Your task to perform on an android device: Install the Instagram app Image 0: 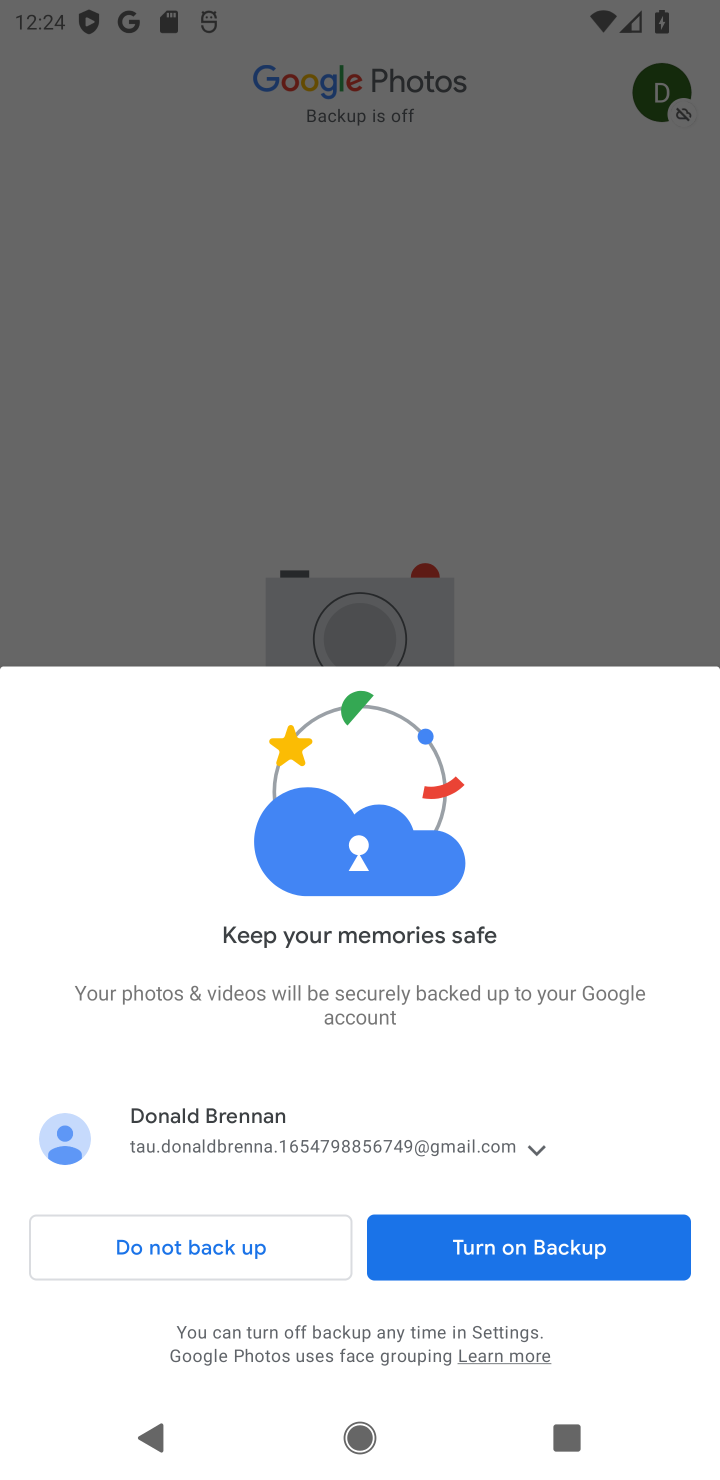
Step 0: press home button
Your task to perform on an android device: Install the Instagram app Image 1: 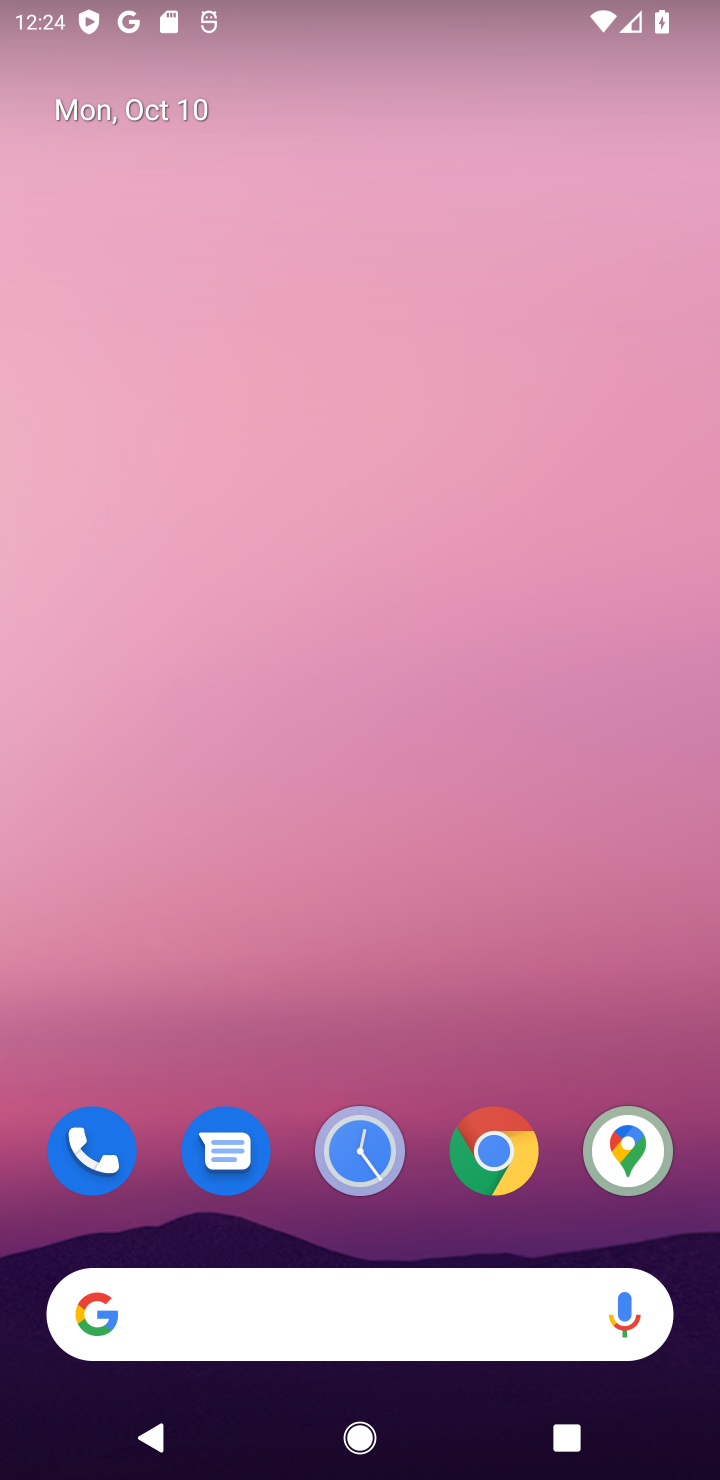
Step 1: drag from (495, 1004) to (448, 265)
Your task to perform on an android device: Install the Instagram app Image 2: 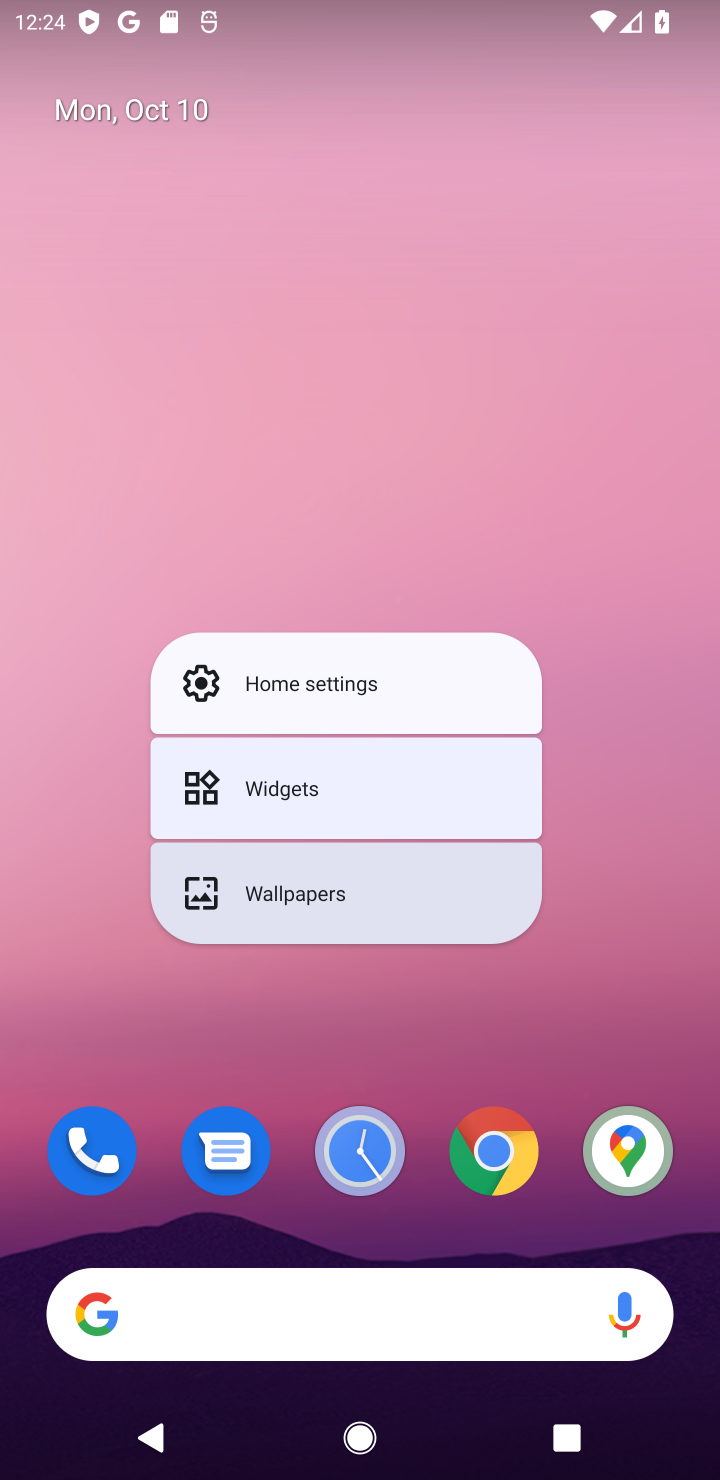
Step 2: click (604, 898)
Your task to perform on an android device: Install the Instagram app Image 3: 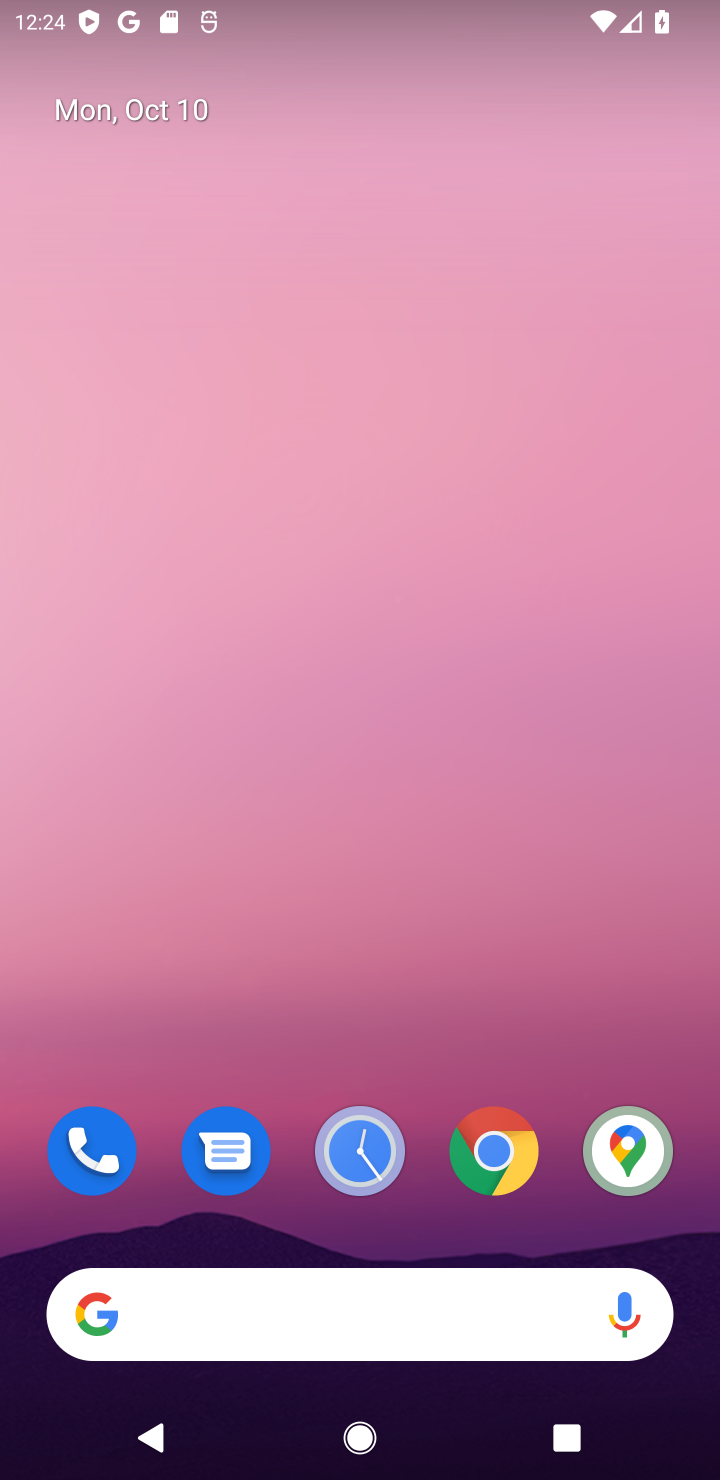
Step 3: drag from (422, 1067) to (278, 347)
Your task to perform on an android device: Install the Instagram app Image 4: 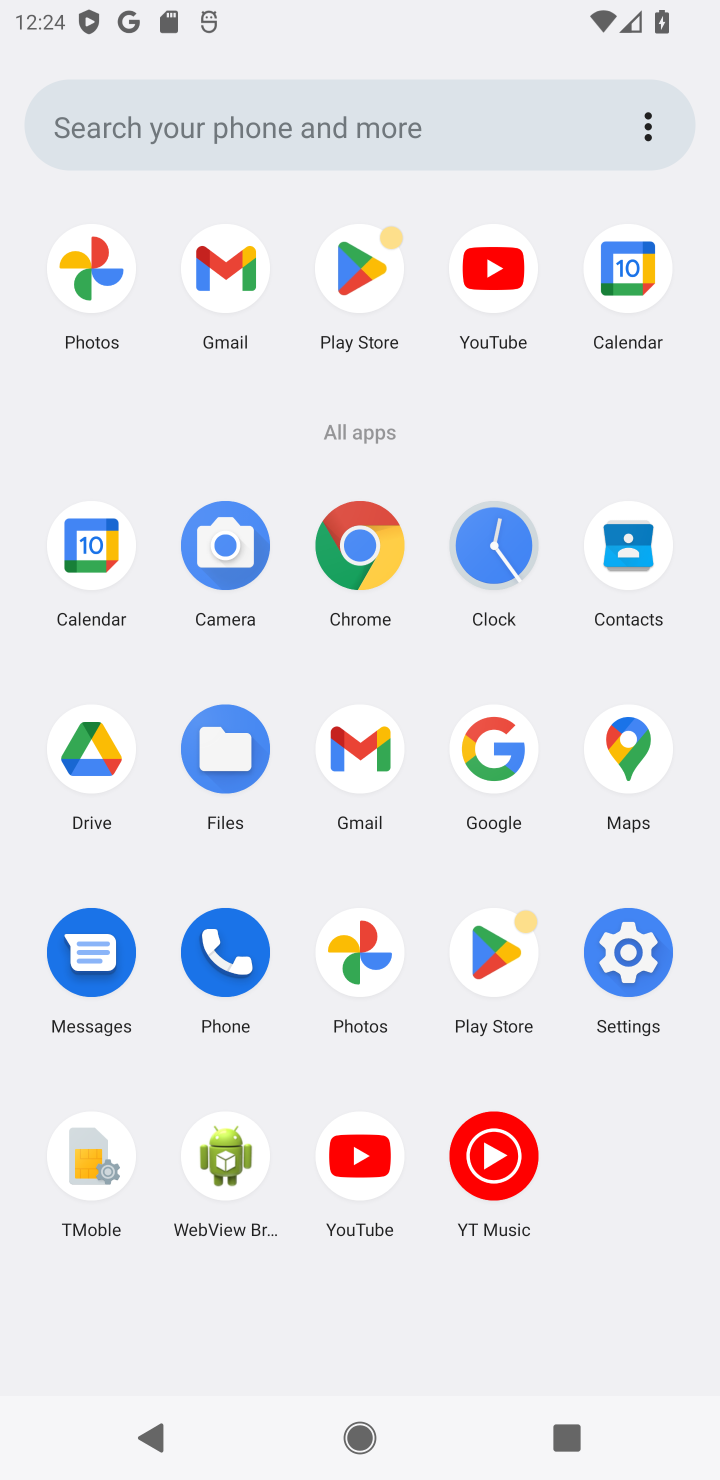
Step 4: click (352, 287)
Your task to perform on an android device: Install the Instagram app Image 5: 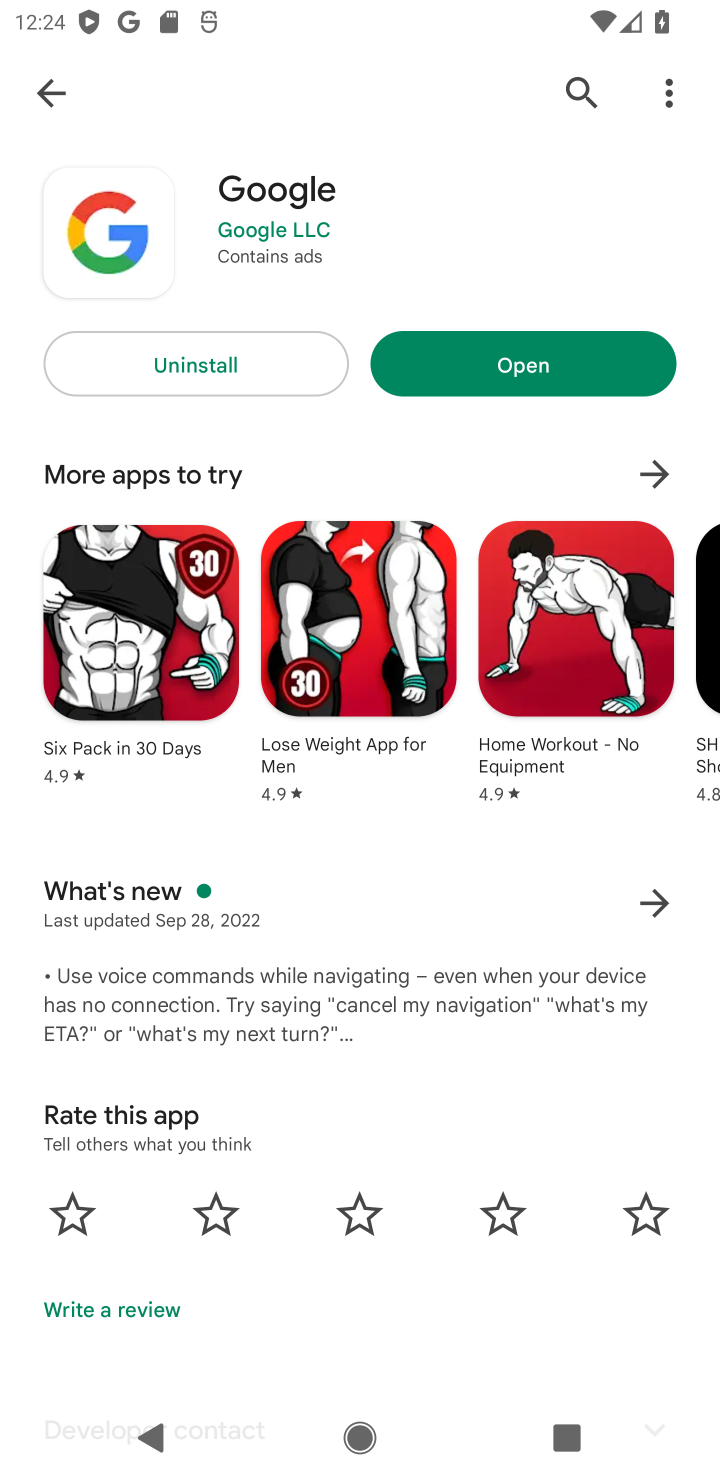
Step 5: click (56, 91)
Your task to perform on an android device: Install the Instagram app Image 6: 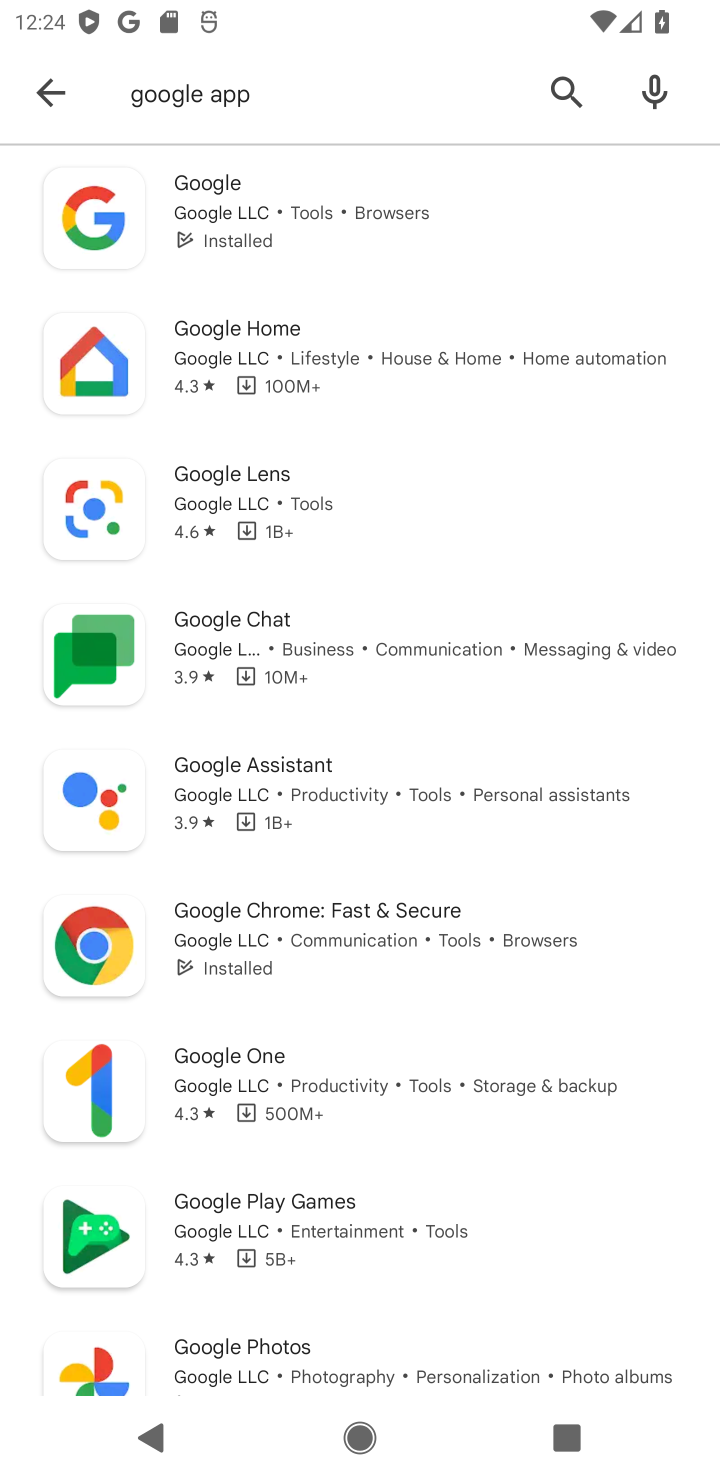
Step 6: click (552, 95)
Your task to perform on an android device: Install the Instagram app Image 7: 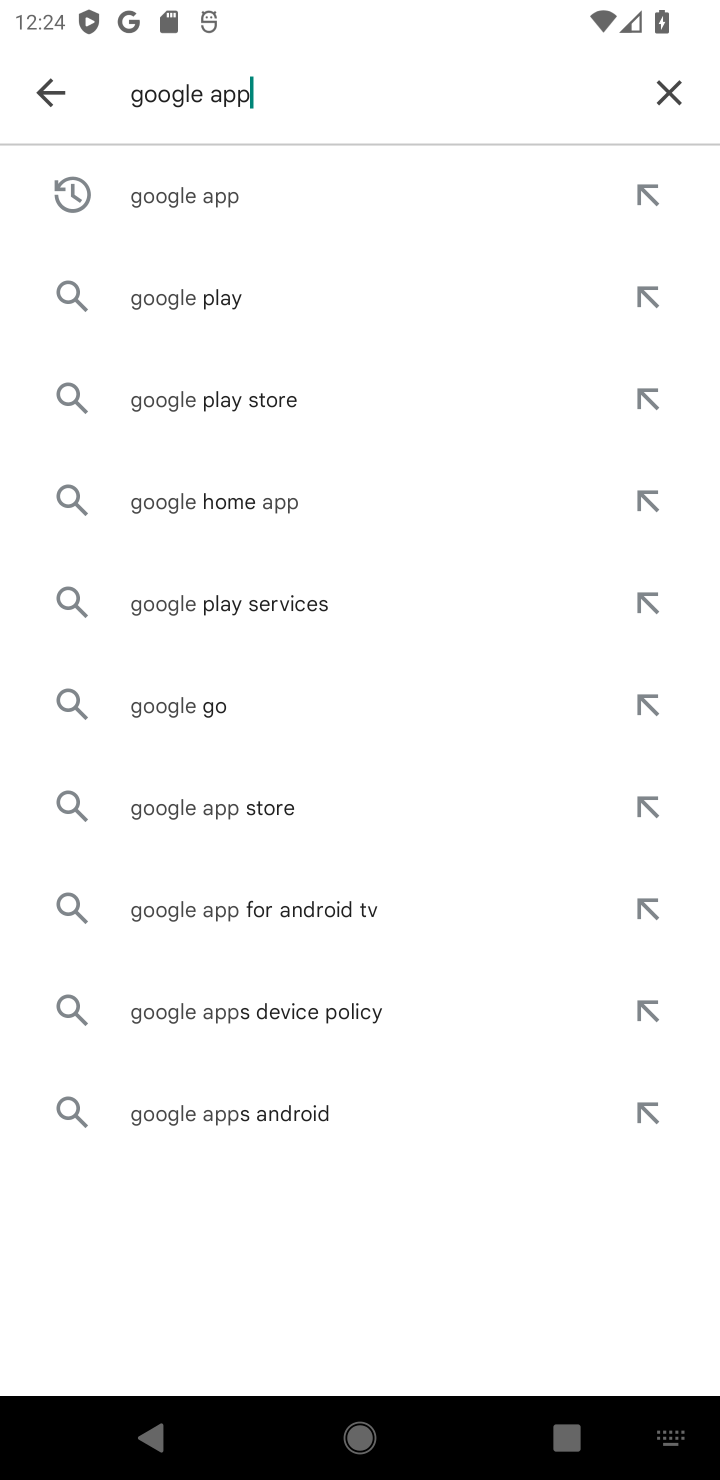
Step 7: click (663, 90)
Your task to perform on an android device: Install the Instagram app Image 8: 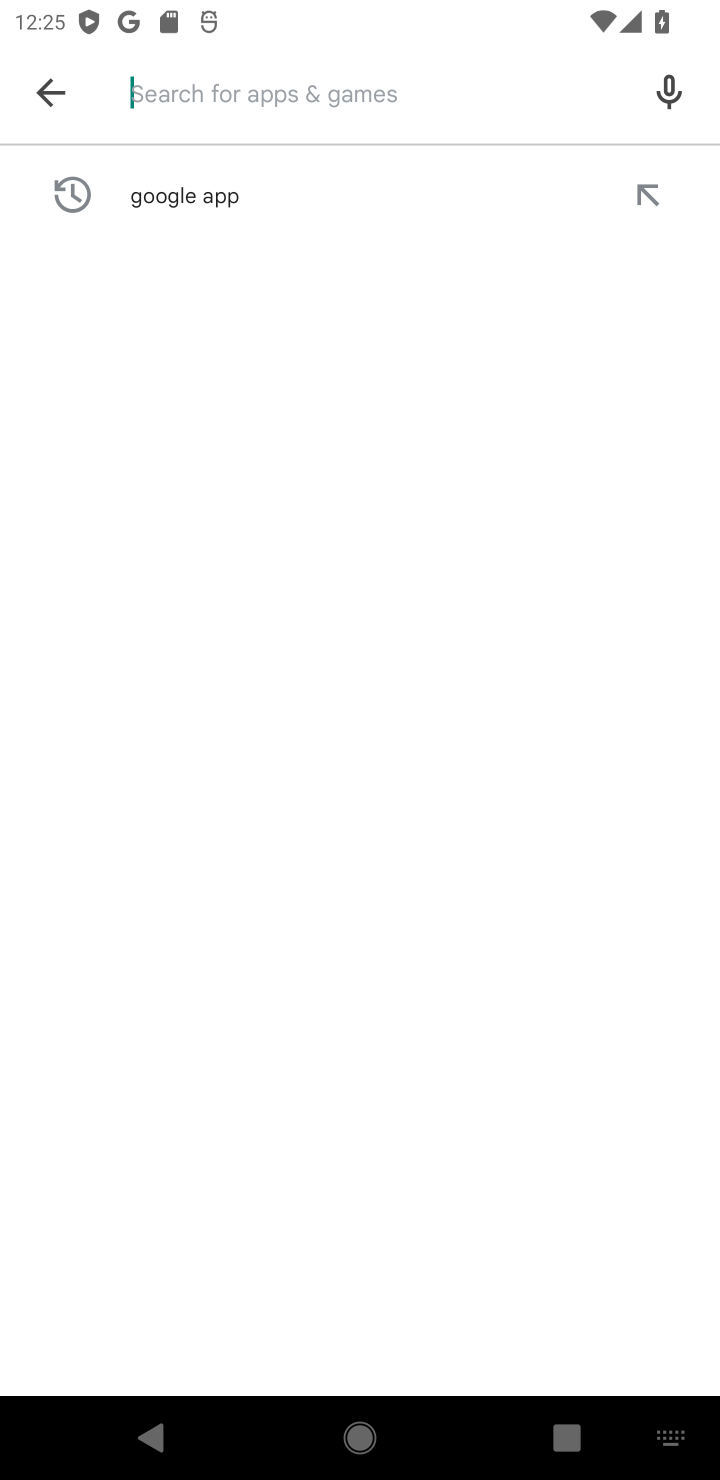
Step 8: type "insta"
Your task to perform on an android device: Install the Instagram app Image 9: 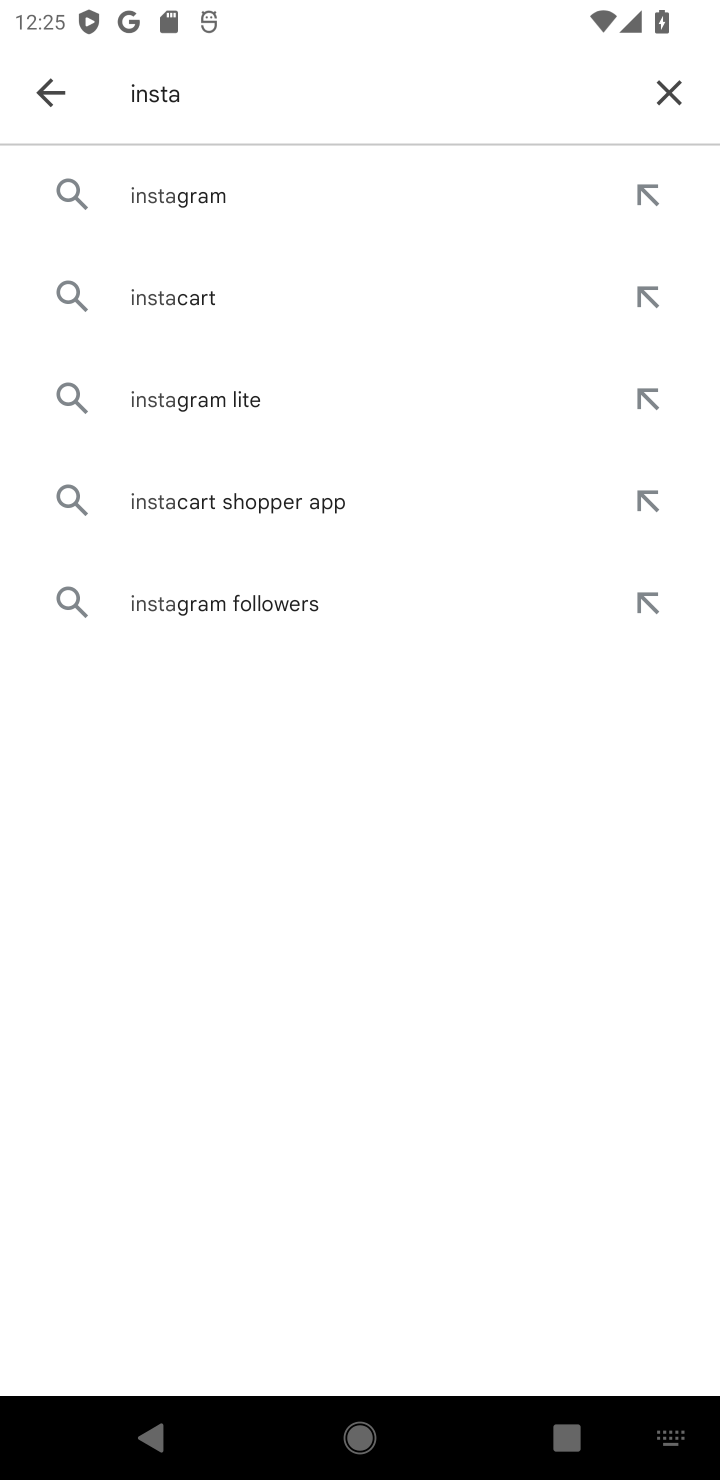
Step 9: click (179, 189)
Your task to perform on an android device: Install the Instagram app Image 10: 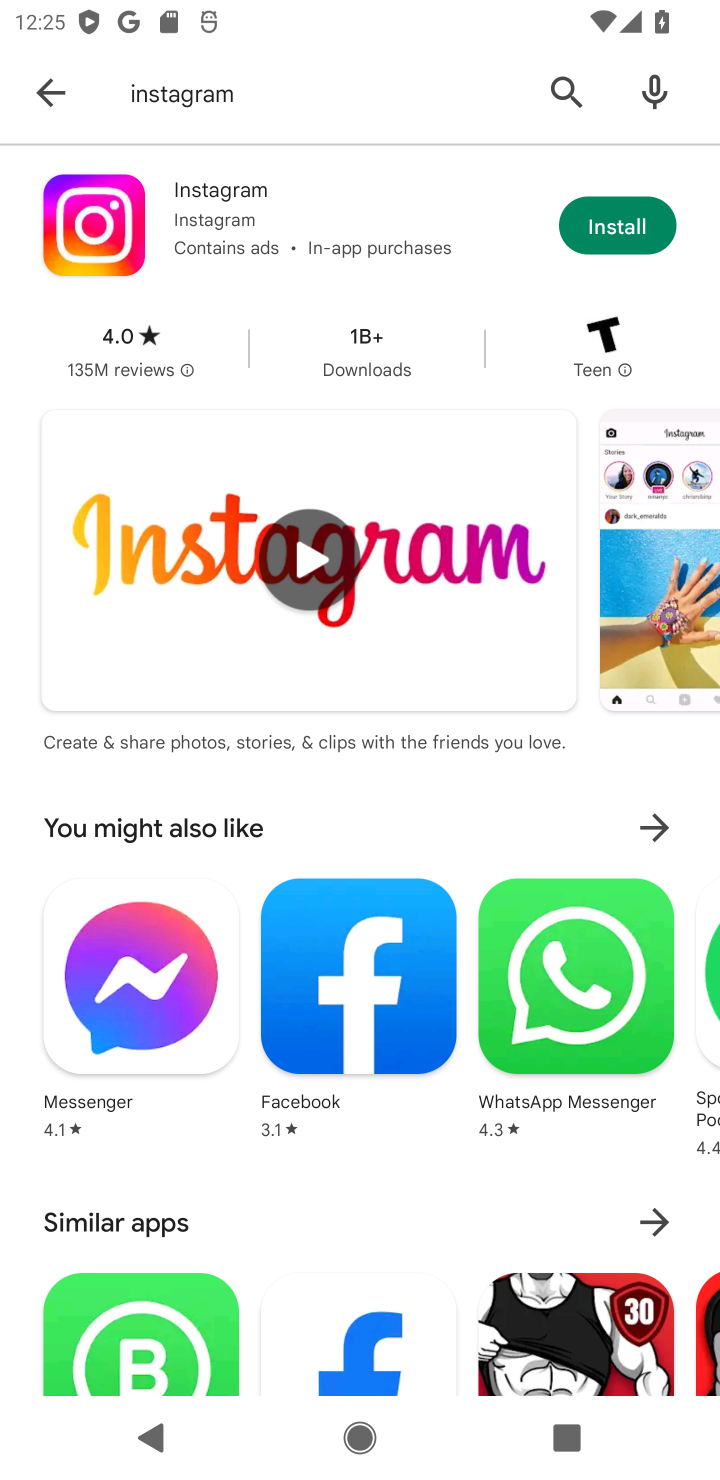
Step 10: click (611, 222)
Your task to perform on an android device: Install the Instagram app Image 11: 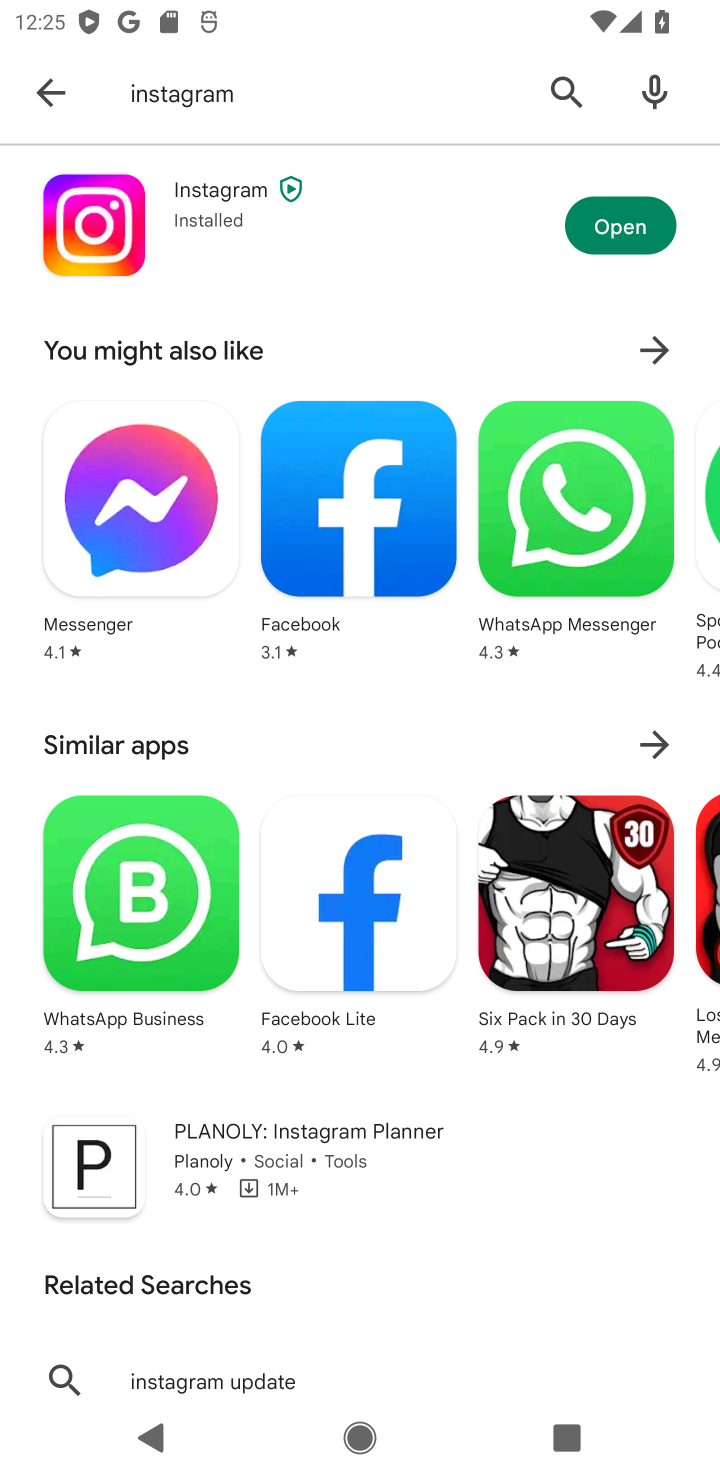
Step 11: task complete